Your task to perform on an android device: turn smart compose on in the gmail app Image 0: 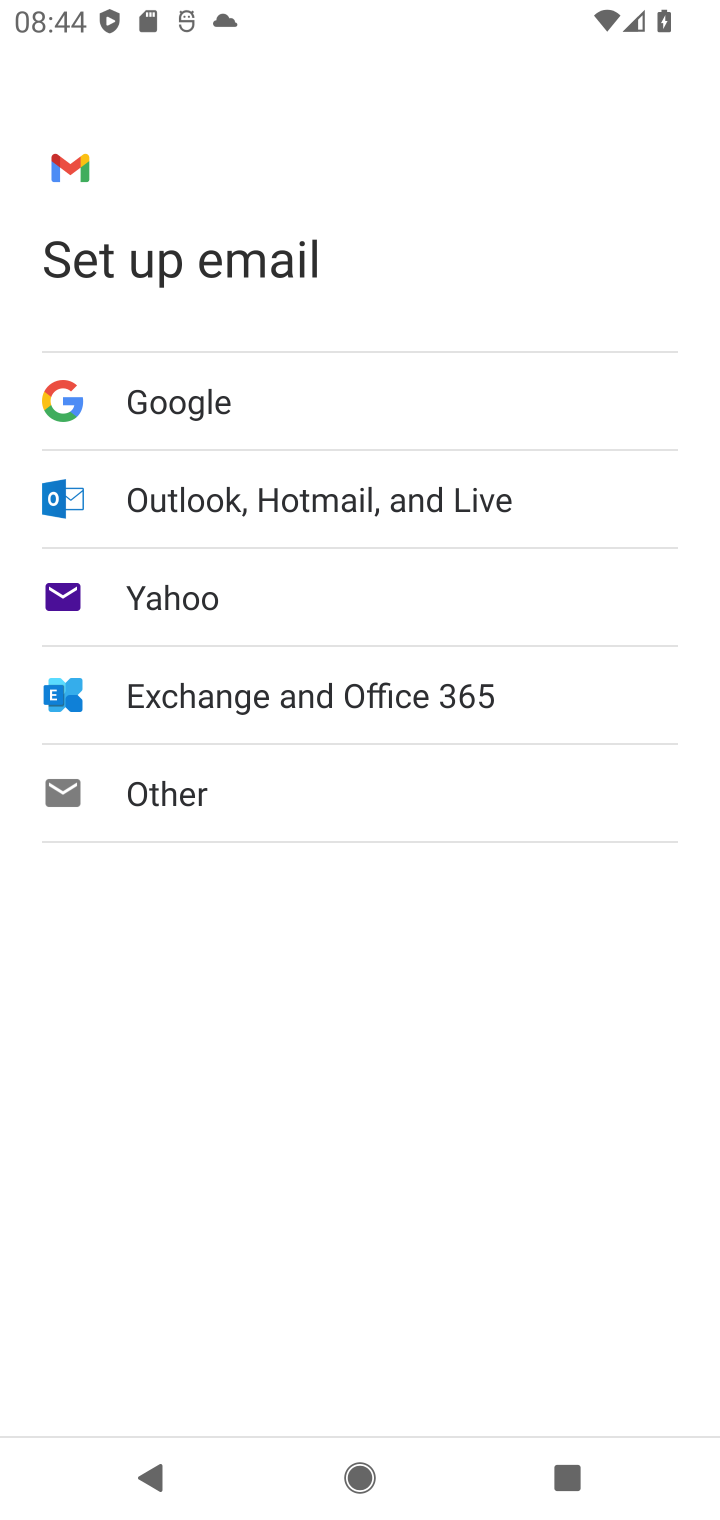
Step 0: click (690, 1213)
Your task to perform on an android device: turn smart compose on in the gmail app Image 1: 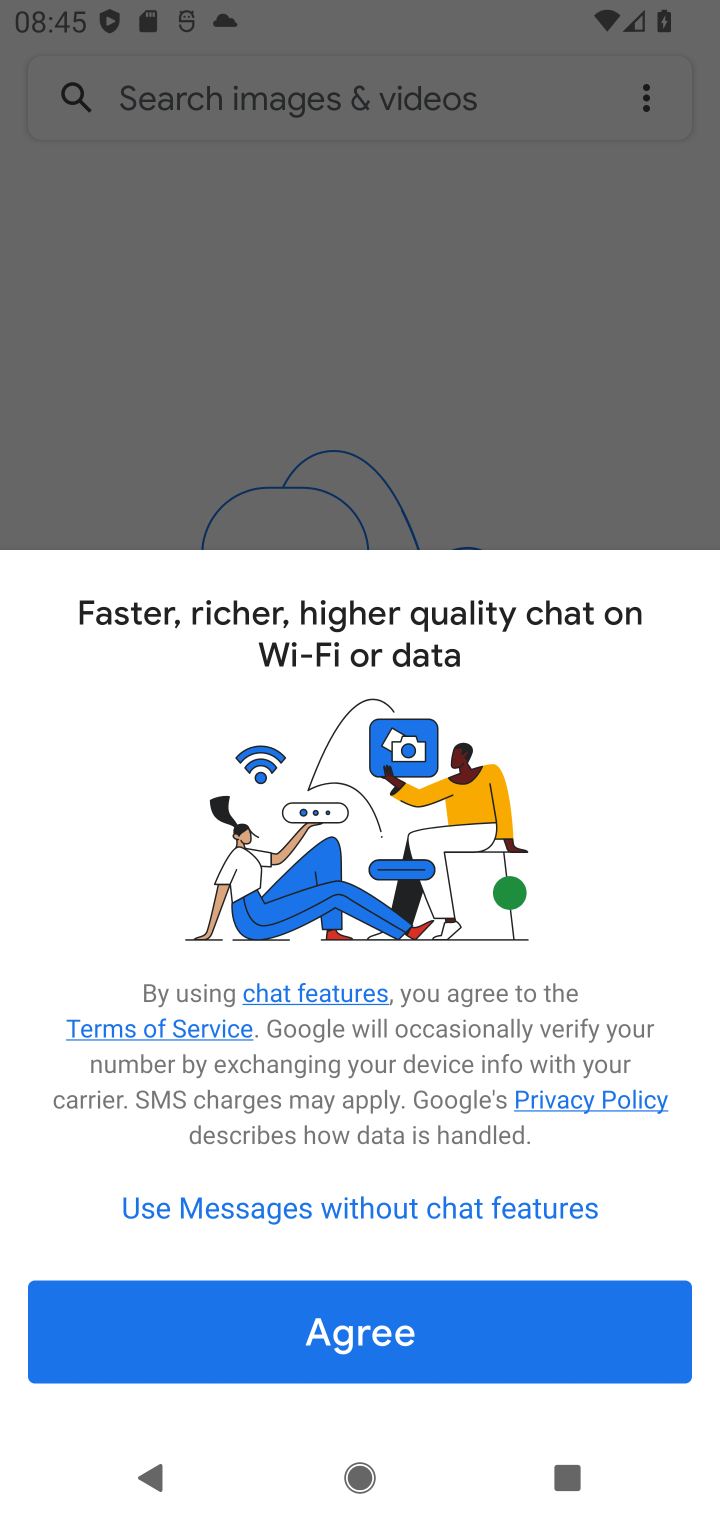
Step 1: press home button
Your task to perform on an android device: turn smart compose on in the gmail app Image 2: 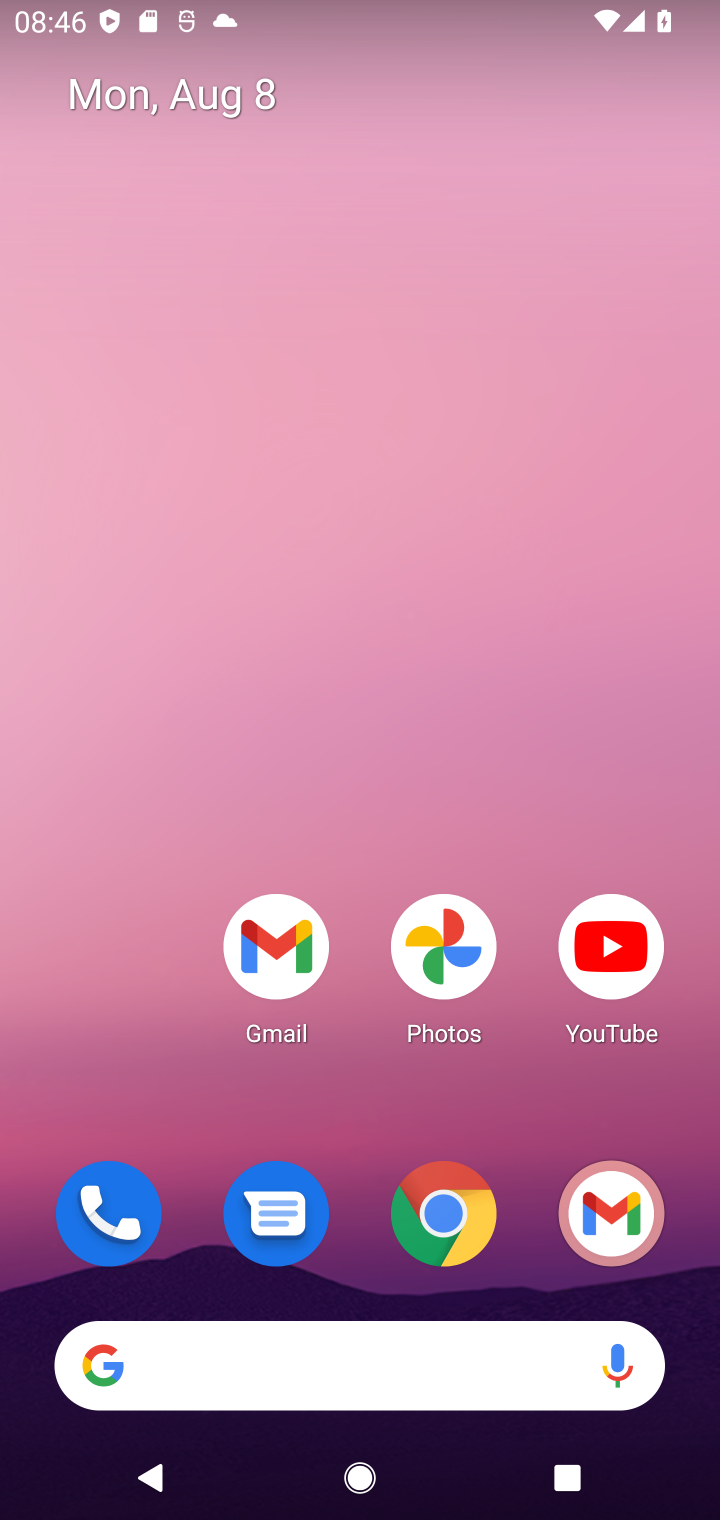
Step 2: drag from (375, 1063) to (316, 439)
Your task to perform on an android device: turn smart compose on in the gmail app Image 3: 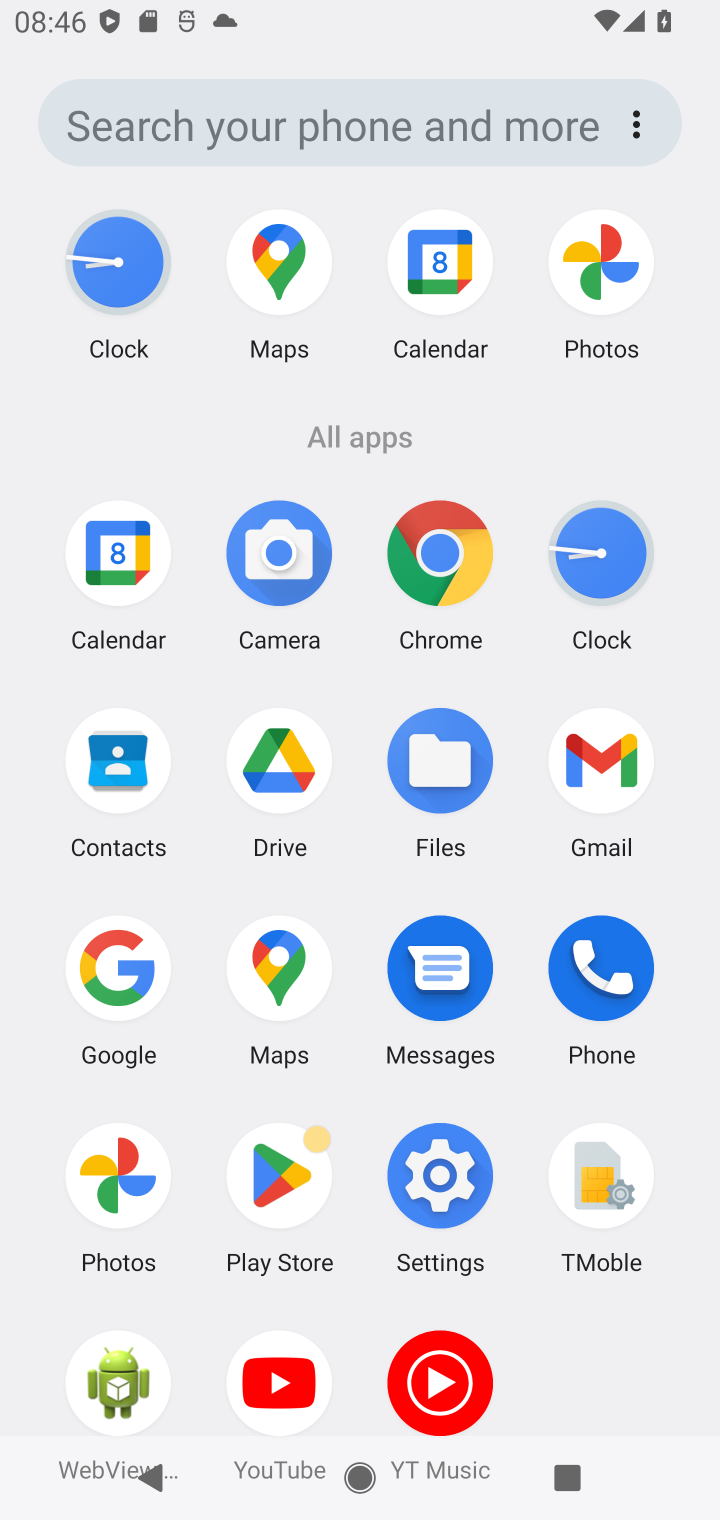
Step 3: click (624, 767)
Your task to perform on an android device: turn smart compose on in the gmail app Image 4: 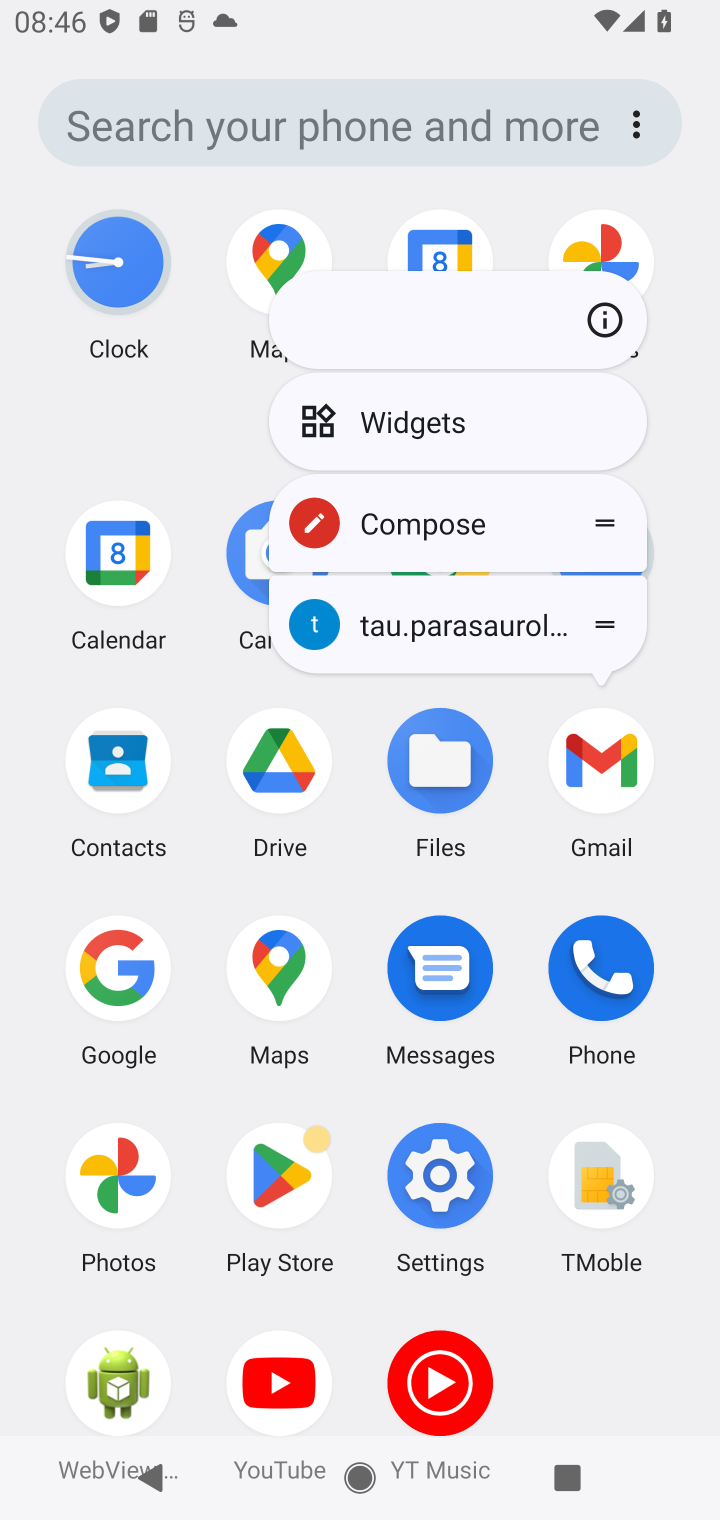
Step 4: click (611, 776)
Your task to perform on an android device: turn smart compose on in the gmail app Image 5: 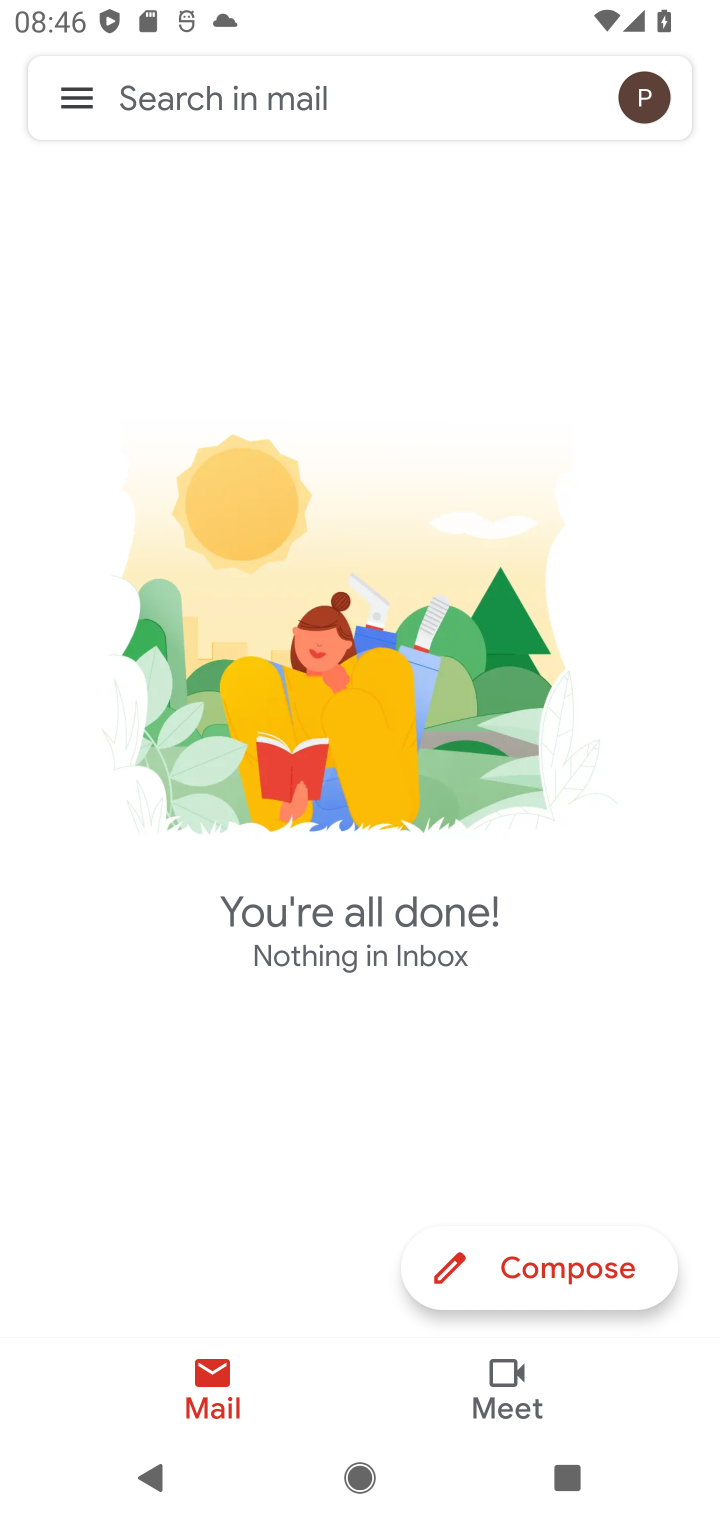
Step 5: click (64, 103)
Your task to perform on an android device: turn smart compose on in the gmail app Image 6: 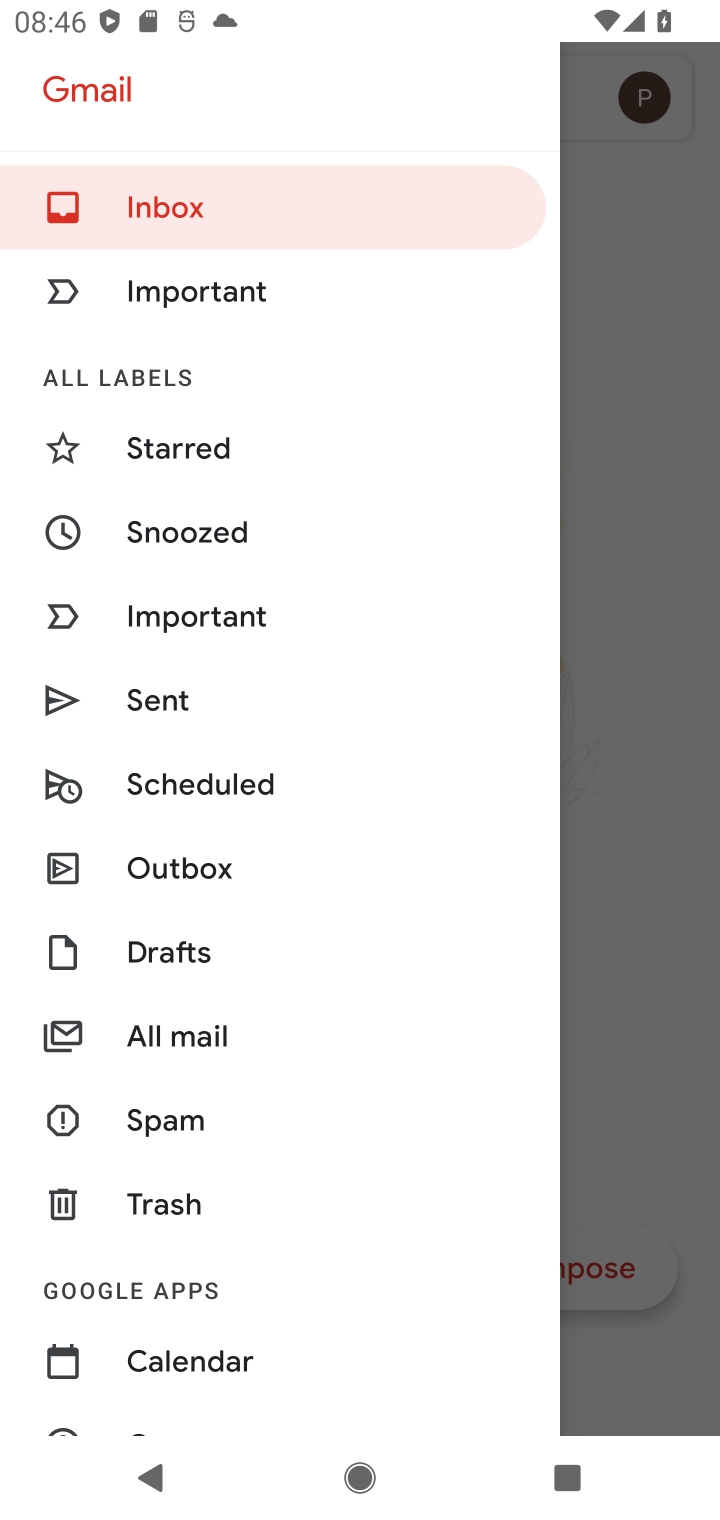
Step 6: drag from (233, 1230) to (271, 221)
Your task to perform on an android device: turn smart compose on in the gmail app Image 7: 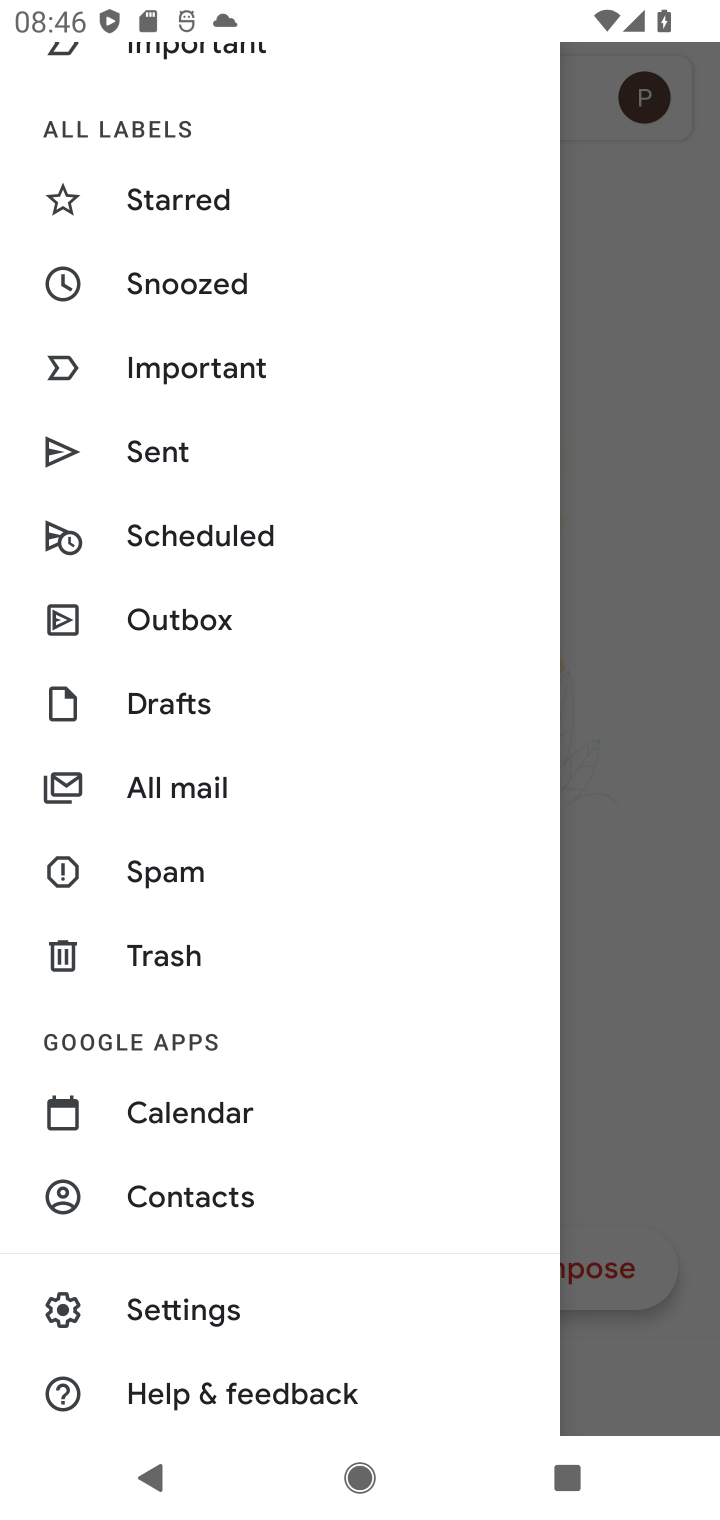
Step 7: click (229, 1310)
Your task to perform on an android device: turn smart compose on in the gmail app Image 8: 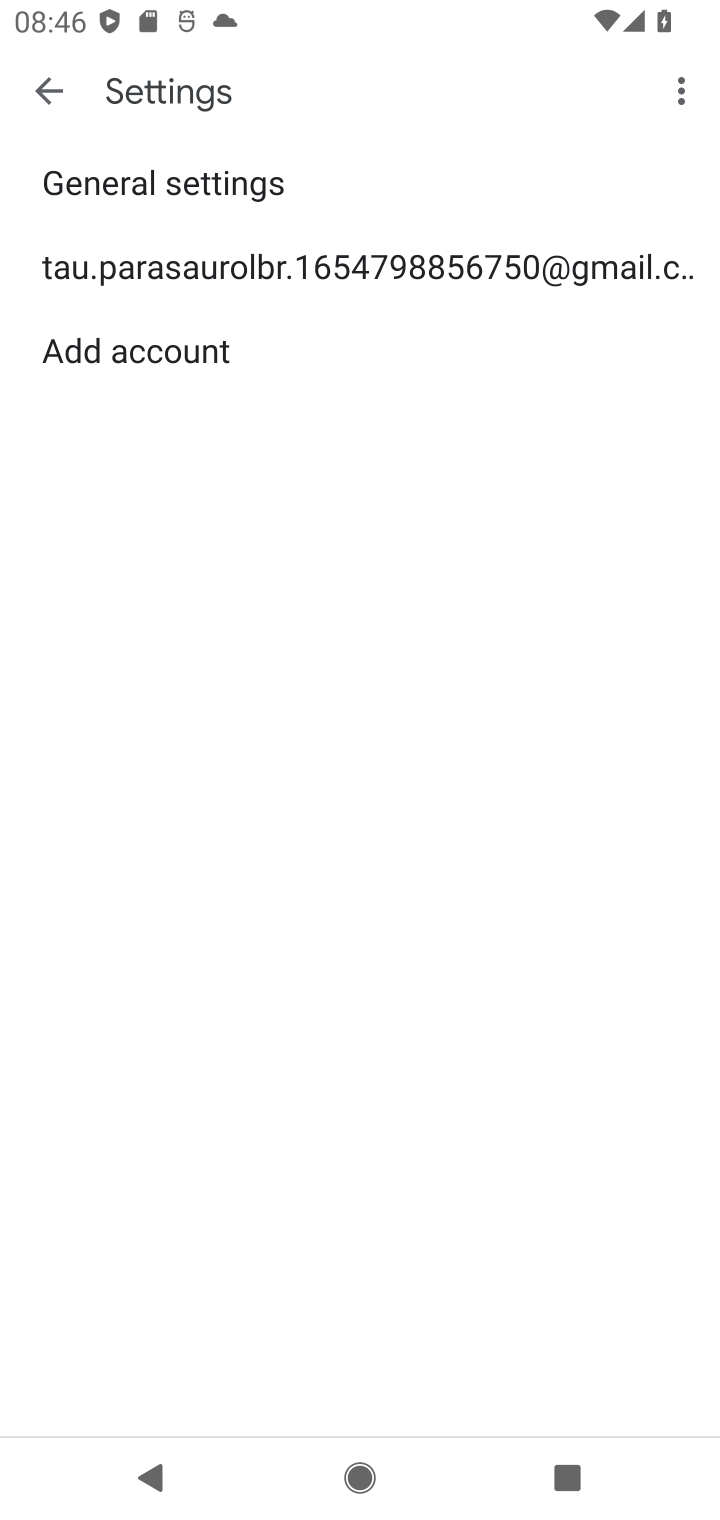
Step 8: click (513, 252)
Your task to perform on an android device: turn smart compose on in the gmail app Image 9: 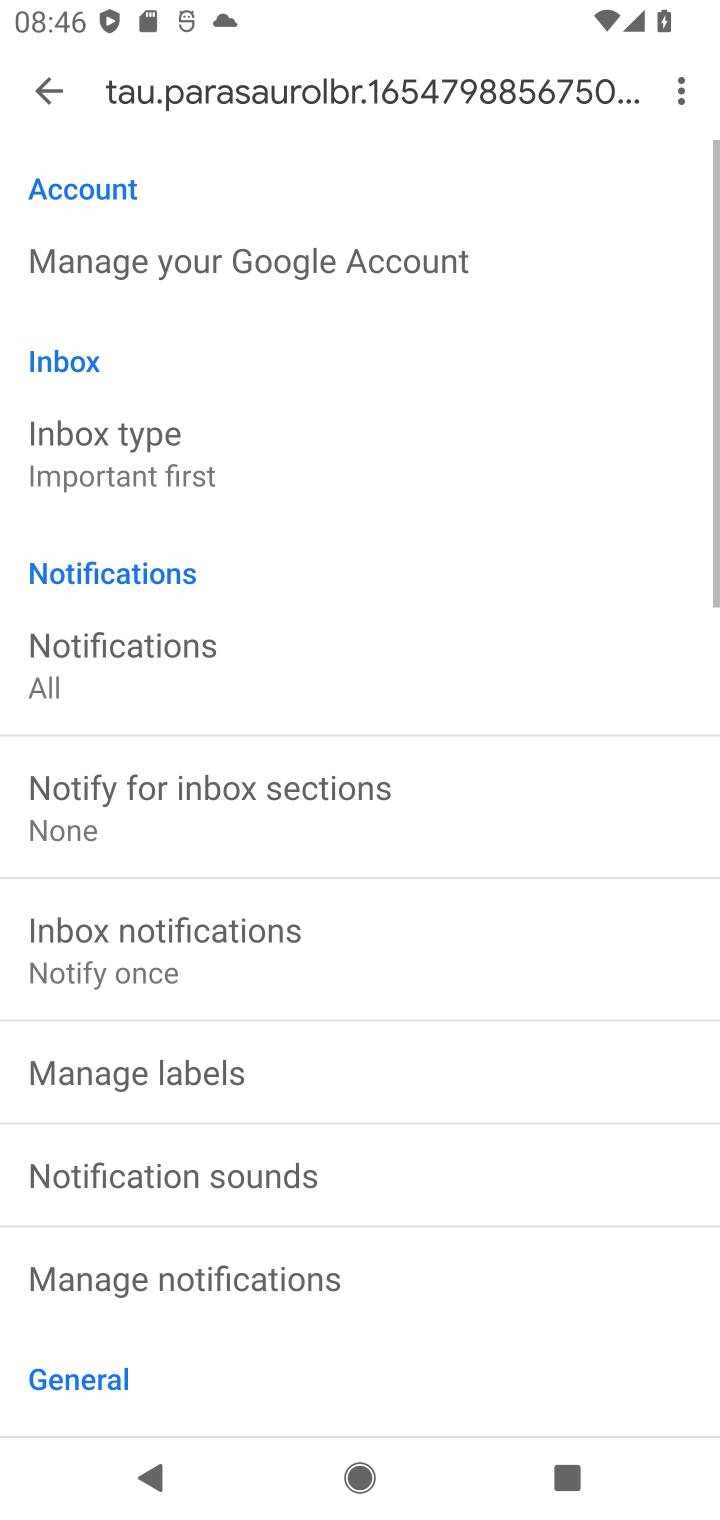
Step 9: task complete